Your task to perform on an android device: Open Yahoo.com Image 0: 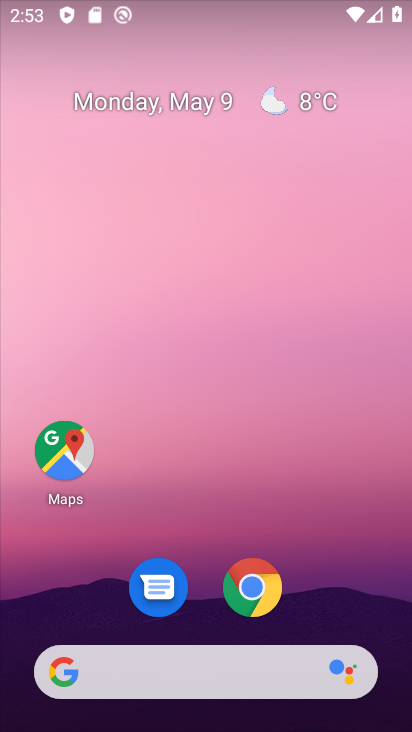
Step 0: drag from (187, 527) to (177, 224)
Your task to perform on an android device: Open Yahoo.com Image 1: 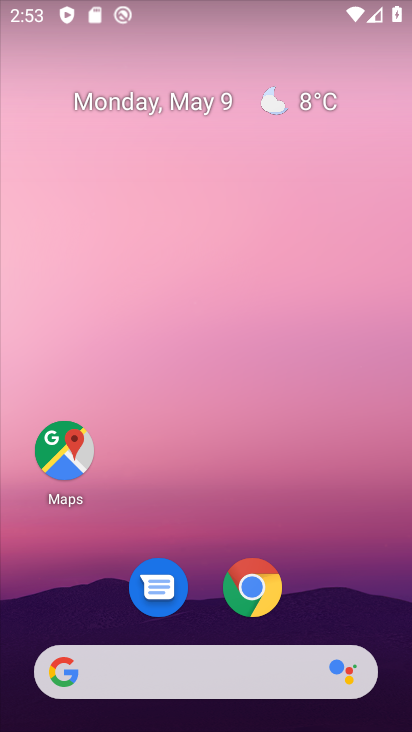
Step 1: drag from (246, 452) to (245, 146)
Your task to perform on an android device: Open Yahoo.com Image 2: 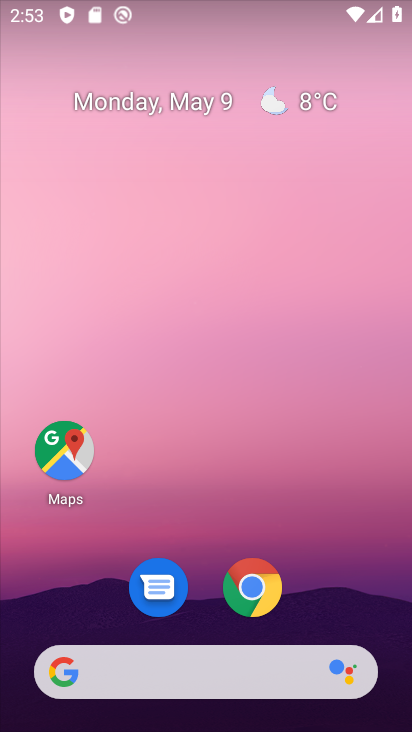
Step 2: drag from (252, 481) to (220, 1)
Your task to perform on an android device: Open Yahoo.com Image 3: 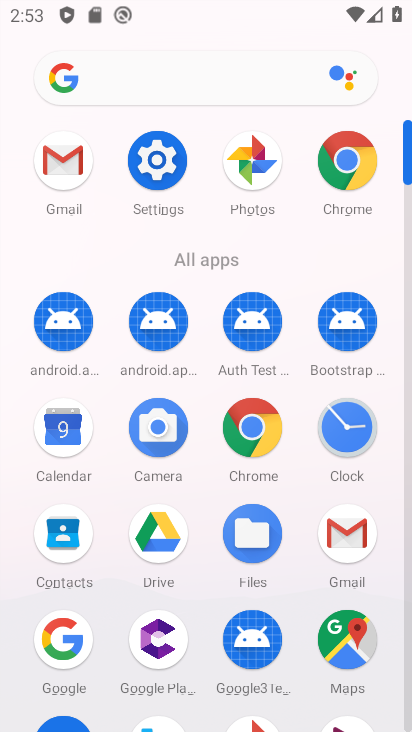
Step 3: click (262, 439)
Your task to perform on an android device: Open Yahoo.com Image 4: 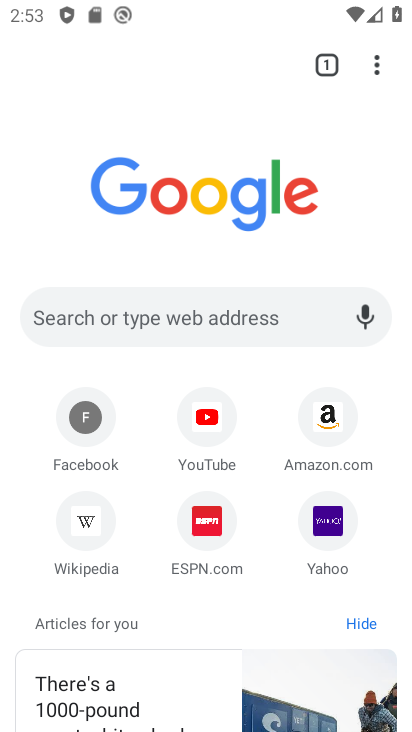
Step 4: click (164, 310)
Your task to perform on an android device: Open Yahoo.com Image 5: 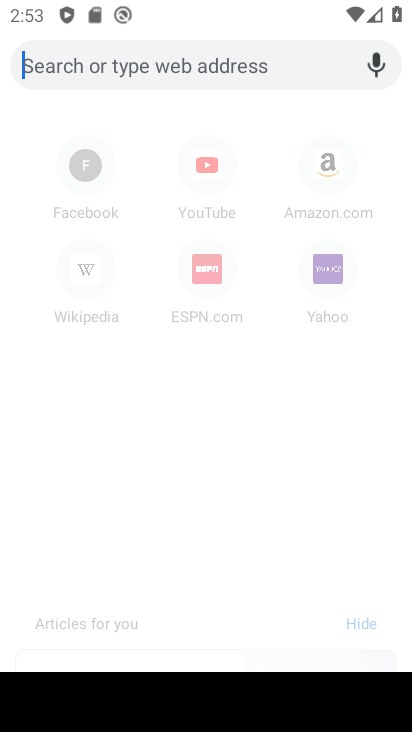
Step 5: click (324, 401)
Your task to perform on an android device: Open Yahoo.com Image 6: 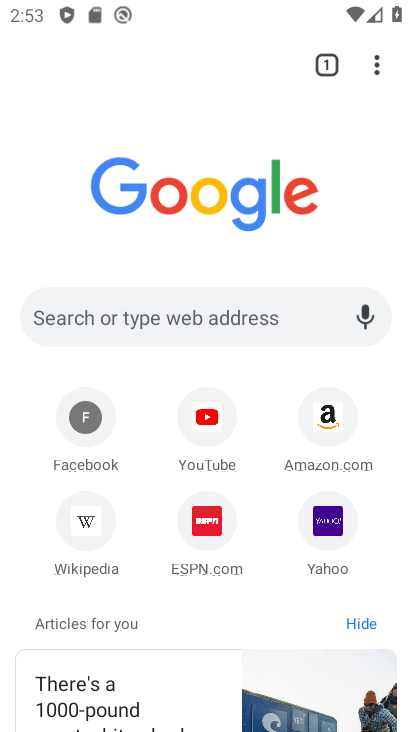
Step 6: click (322, 517)
Your task to perform on an android device: Open Yahoo.com Image 7: 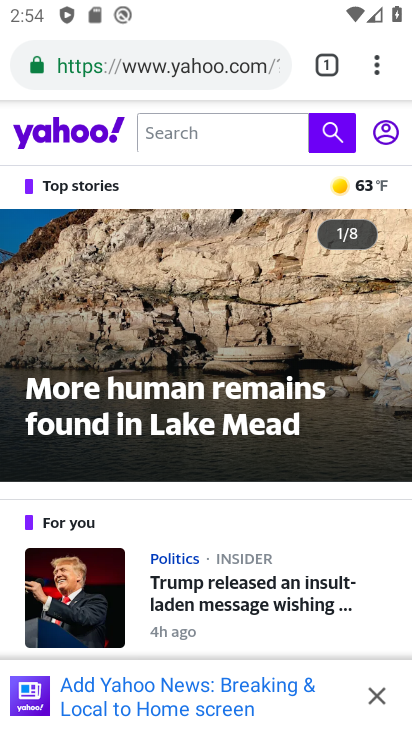
Step 7: task complete